Your task to perform on an android device: Go to Maps Image 0: 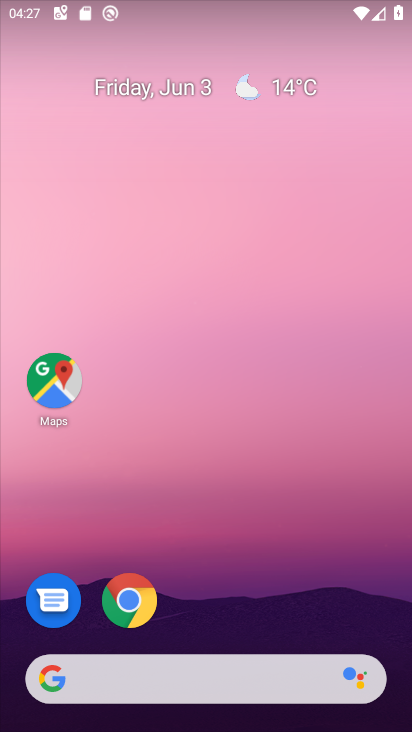
Step 0: click (58, 383)
Your task to perform on an android device: Go to Maps Image 1: 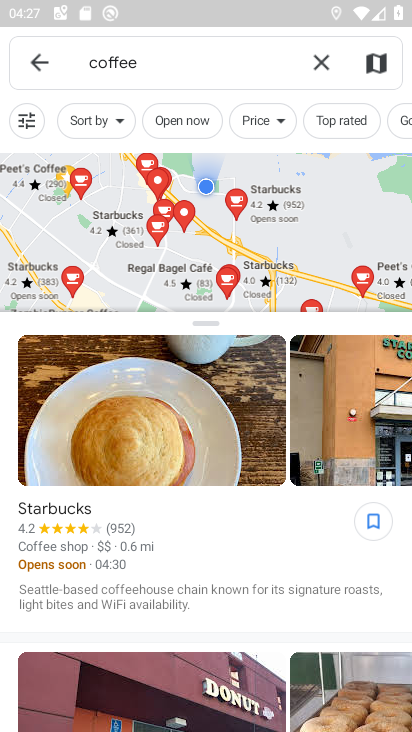
Step 1: task complete